Your task to perform on an android device: turn off javascript in the chrome app Image 0: 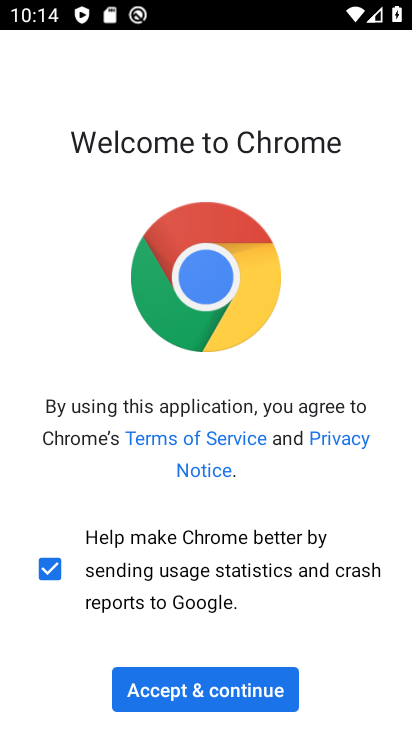
Step 0: click (191, 692)
Your task to perform on an android device: turn off javascript in the chrome app Image 1: 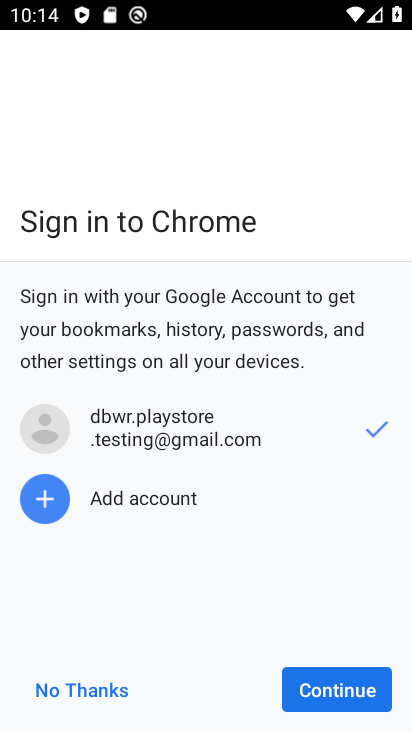
Step 1: click (304, 702)
Your task to perform on an android device: turn off javascript in the chrome app Image 2: 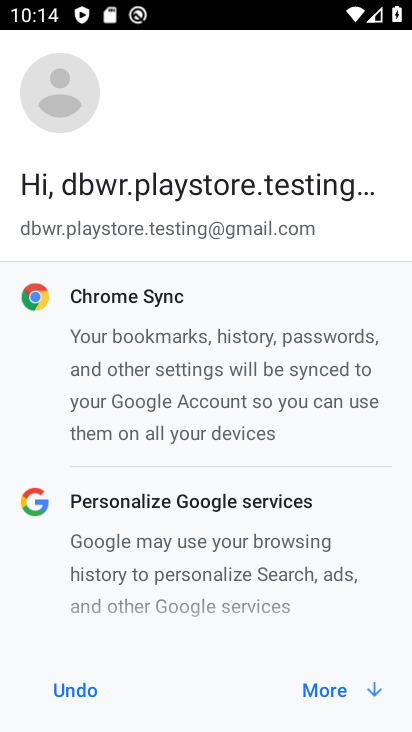
Step 2: click (333, 686)
Your task to perform on an android device: turn off javascript in the chrome app Image 3: 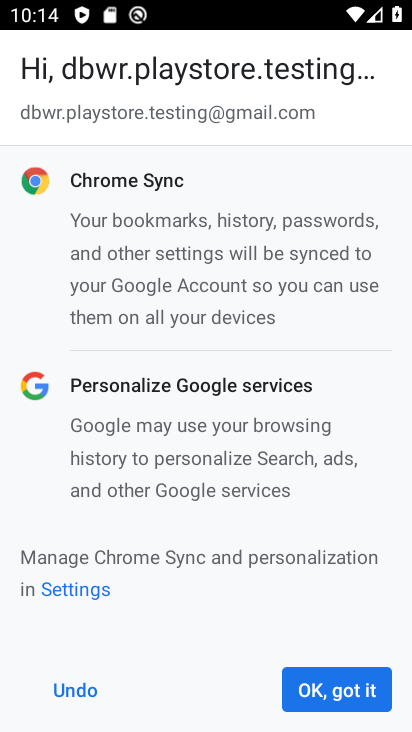
Step 3: click (333, 686)
Your task to perform on an android device: turn off javascript in the chrome app Image 4: 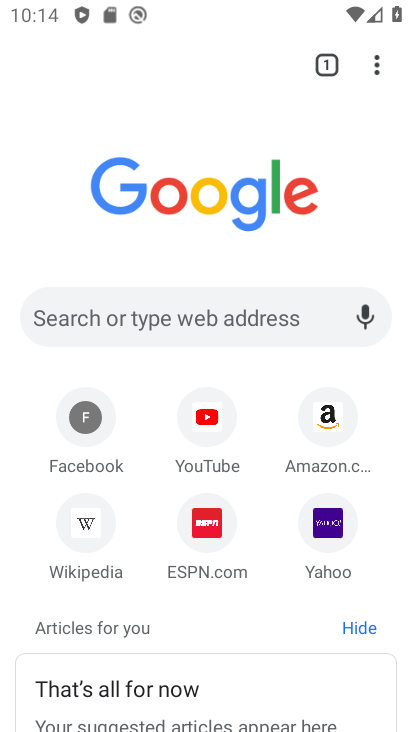
Step 4: drag from (373, 58) to (130, 534)
Your task to perform on an android device: turn off javascript in the chrome app Image 5: 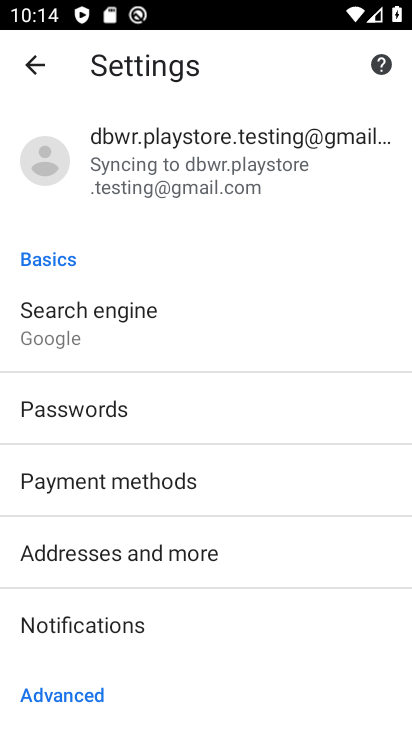
Step 5: drag from (224, 466) to (225, 150)
Your task to perform on an android device: turn off javascript in the chrome app Image 6: 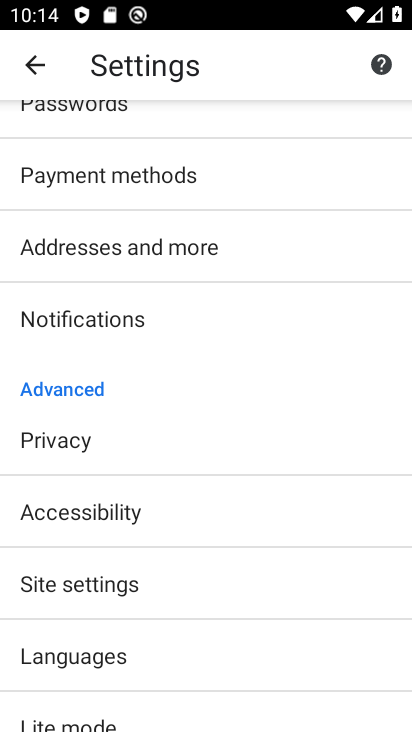
Step 6: drag from (202, 541) to (215, 142)
Your task to perform on an android device: turn off javascript in the chrome app Image 7: 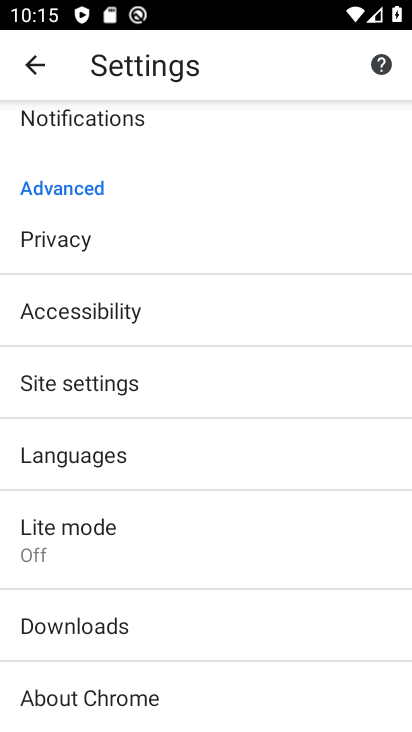
Step 7: click (141, 385)
Your task to perform on an android device: turn off javascript in the chrome app Image 8: 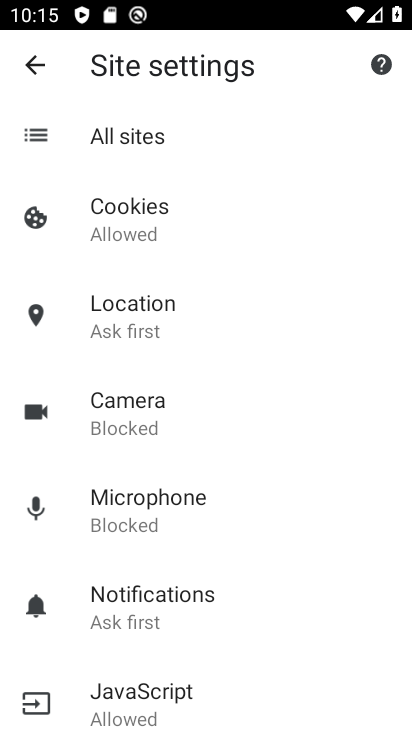
Step 8: click (200, 705)
Your task to perform on an android device: turn off javascript in the chrome app Image 9: 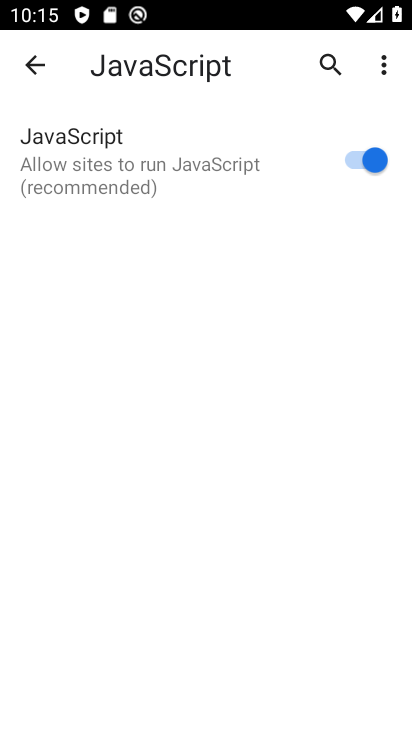
Step 9: click (355, 161)
Your task to perform on an android device: turn off javascript in the chrome app Image 10: 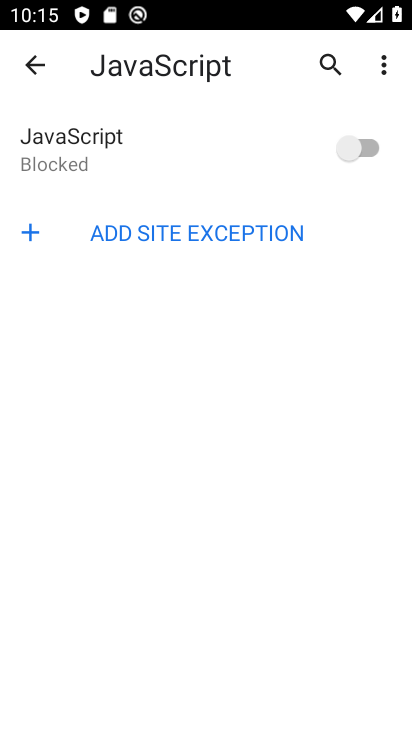
Step 10: task complete